Your task to perform on an android device: Open calendar and show me the first week of next month Image 0: 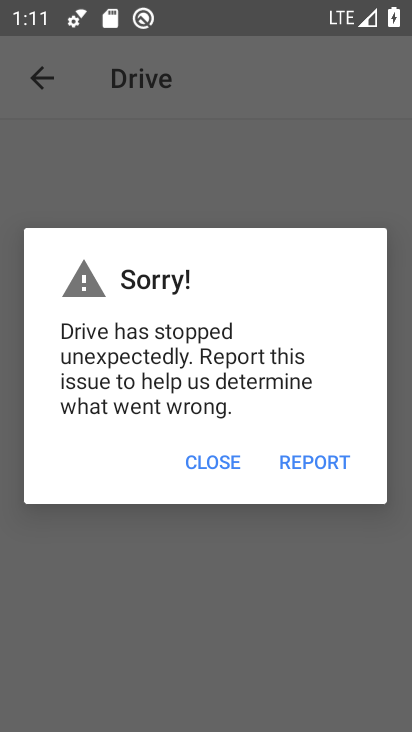
Step 0: press home button
Your task to perform on an android device: Open calendar and show me the first week of next month Image 1: 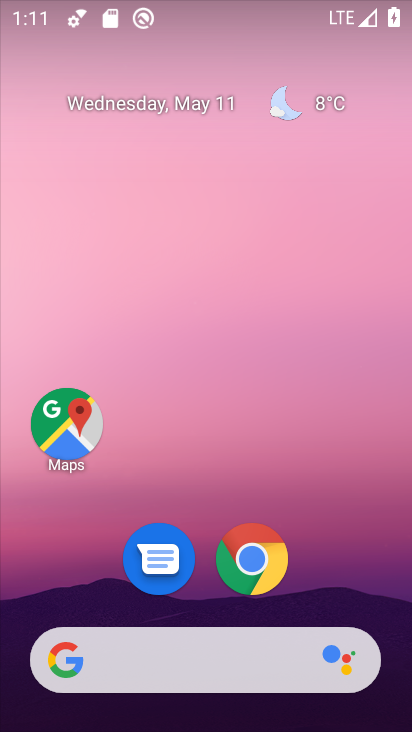
Step 1: drag from (213, 719) to (226, 60)
Your task to perform on an android device: Open calendar and show me the first week of next month Image 2: 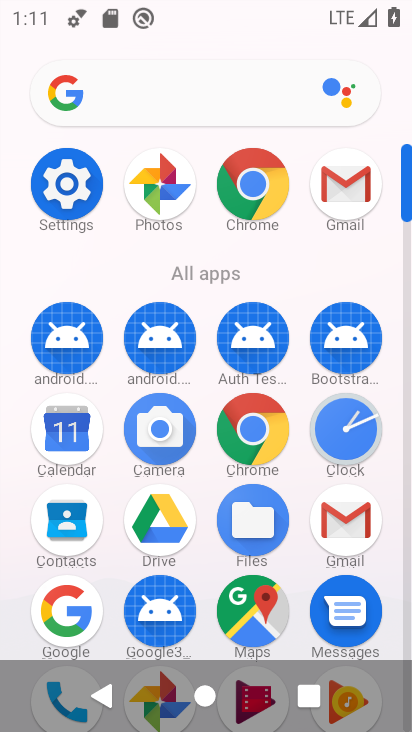
Step 2: click (70, 433)
Your task to perform on an android device: Open calendar and show me the first week of next month Image 3: 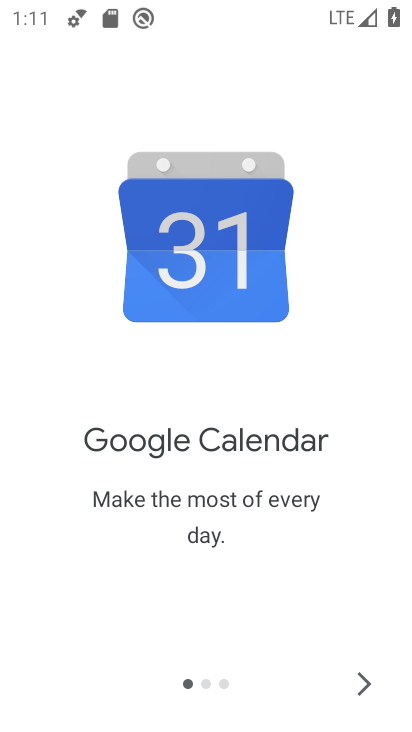
Step 3: click (351, 685)
Your task to perform on an android device: Open calendar and show me the first week of next month Image 4: 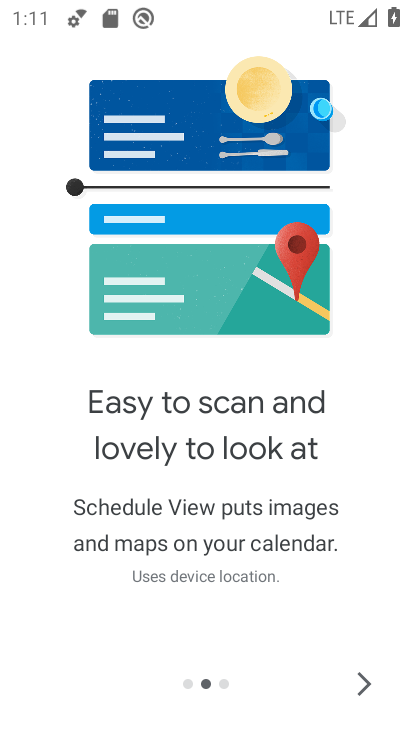
Step 4: click (361, 683)
Your task to perform on an android device: Open calendar and show me the first week of next month Image 5: 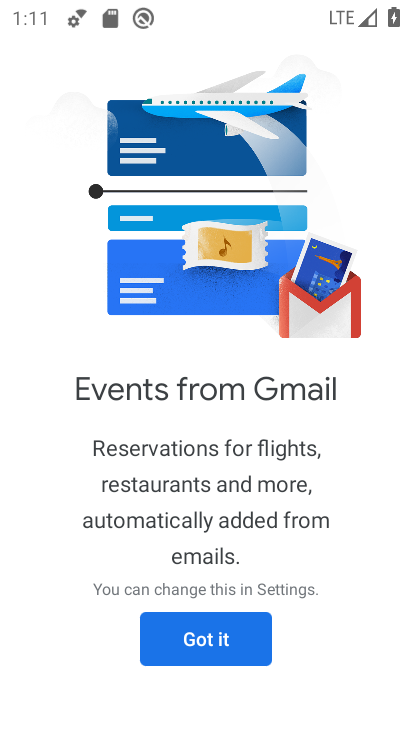
Step 5: click (189, 623)
Your task to perform on an android device: Open calendar and show me the first week of next month Image 6: 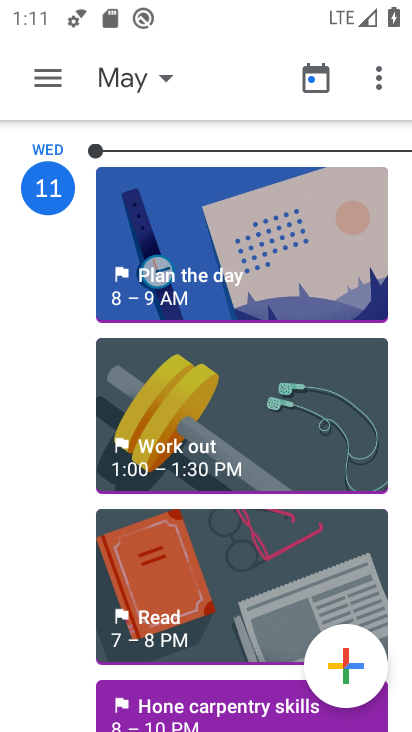
Step 6: click (116, 75)
Your task to perform on an android device: Open calendar and show me the first week of next month Image 7: 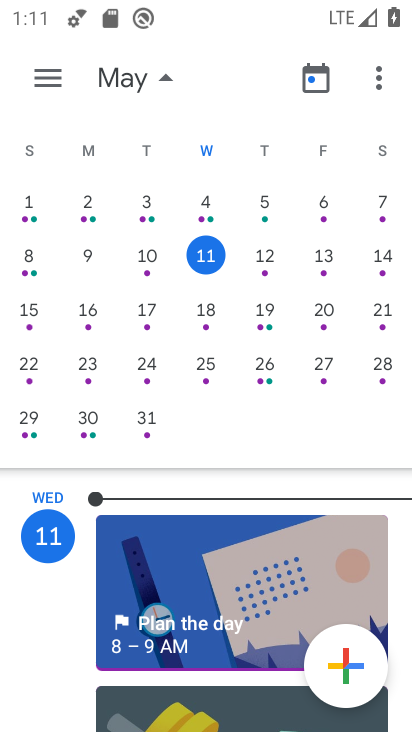
Step 7: drag from (332, 264) to (0, 269)
Your task to perform on an android device: Open calendar and show me the first week of next month Image 8: 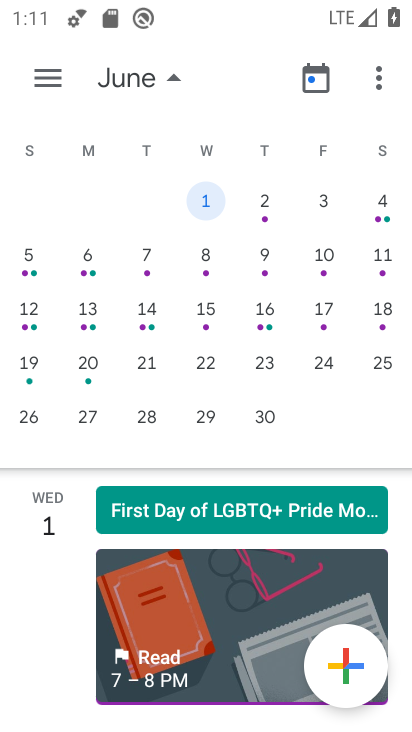
Step 8: click (85, 262)
Your task to perform on an android device: Open calendar and show me the first week of next month Image 9: 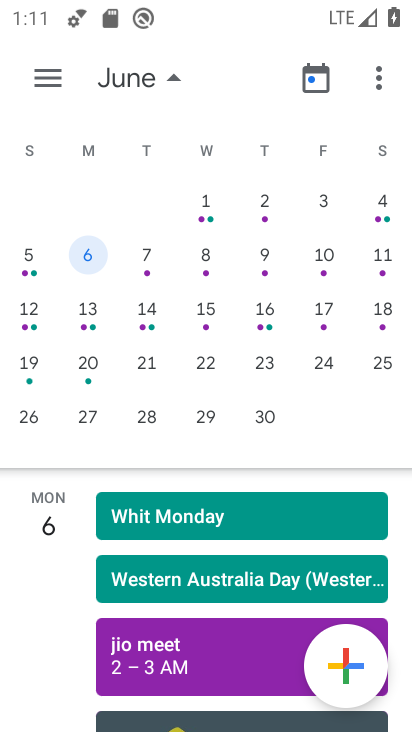
Step 9: click (51, 82)
Your task to perform on an android device: Open calendar and show me the first week of next month Image 10: 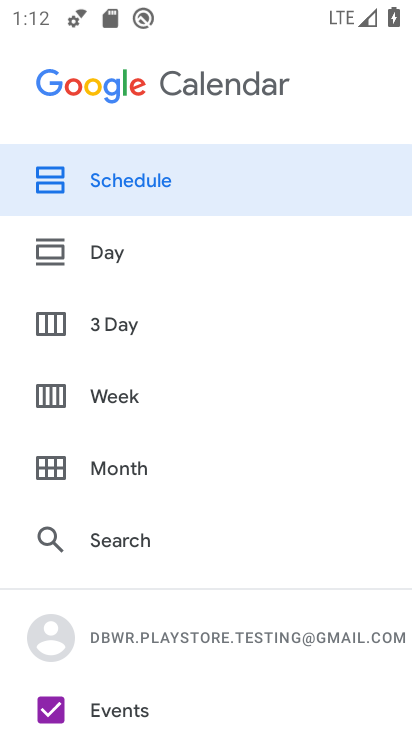
Step 10: click (107, 396)
Your task to perform on an android device: Open calendar and show me the first week of next month Image 11: 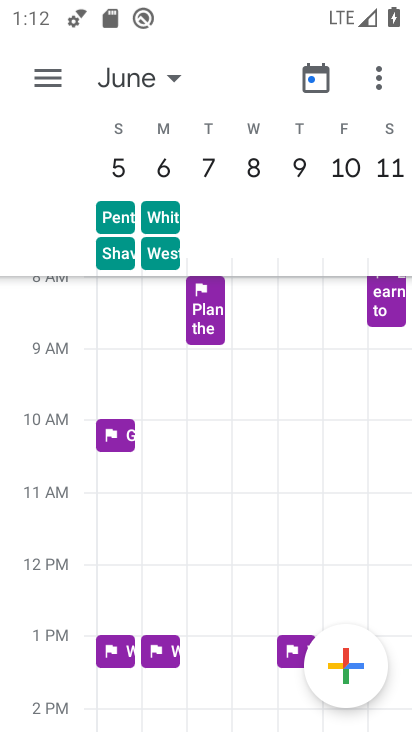
Step 11: task complete